Your task to perform on an android device: install app "Fetch Rewards" Image 0: 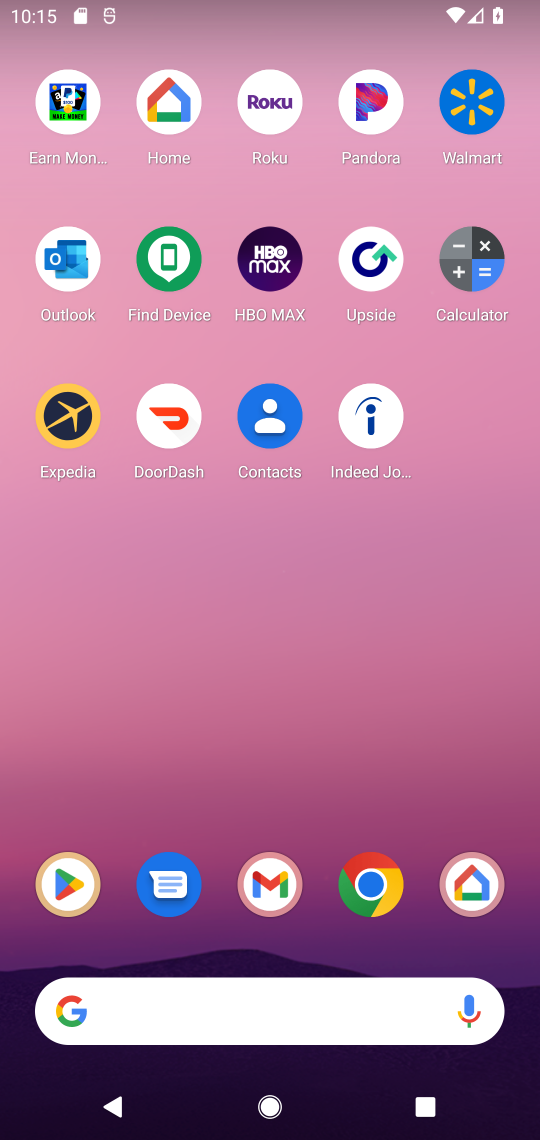
Step 0: click (67, 876)
Your task to perform on an android device: install app "Fetch Rewards" Image 1: 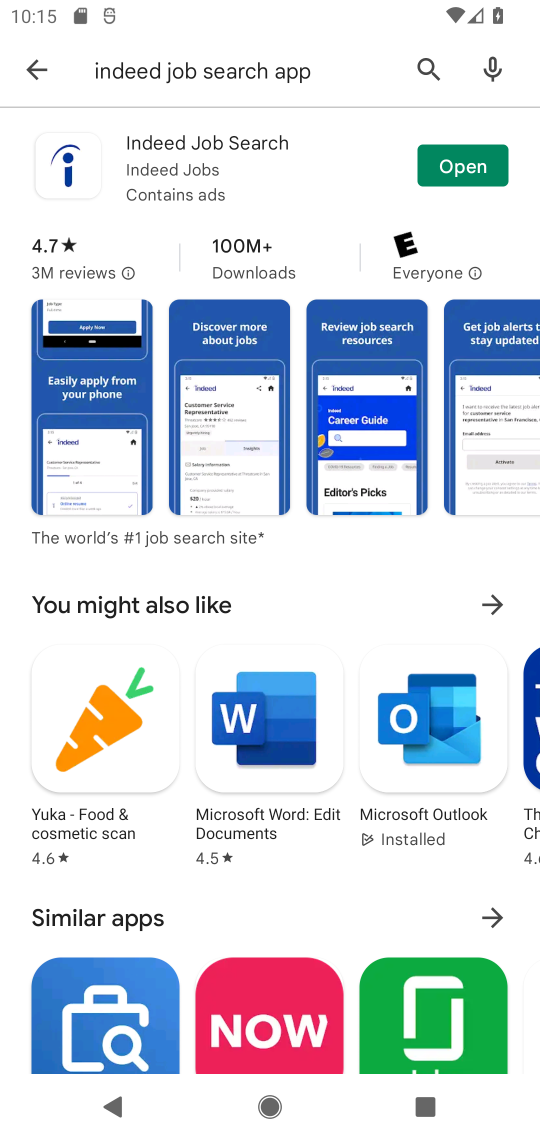
Step 1: click (289, 72)
Your task to perform on an android device: install app "Fetch Rewards" Image 2: 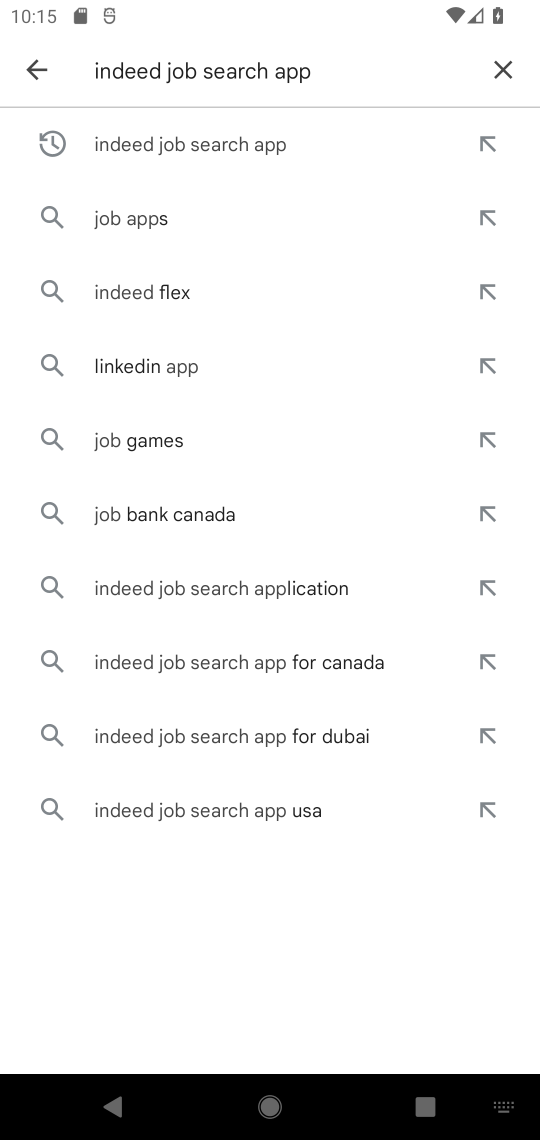
Step 2: click (498, 58)
Your task to perform on an android device: install app "Fetch Rewards" Image 3: 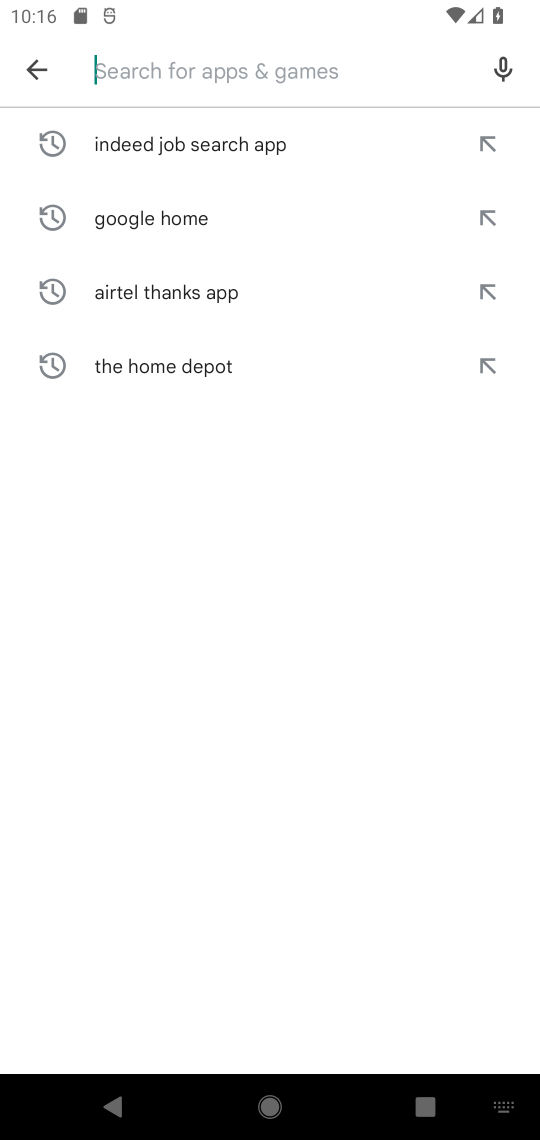
Step 3: type "fetch Rewards"
Your task to perform on an android device: install app "Fetch Rewards" Image 4: 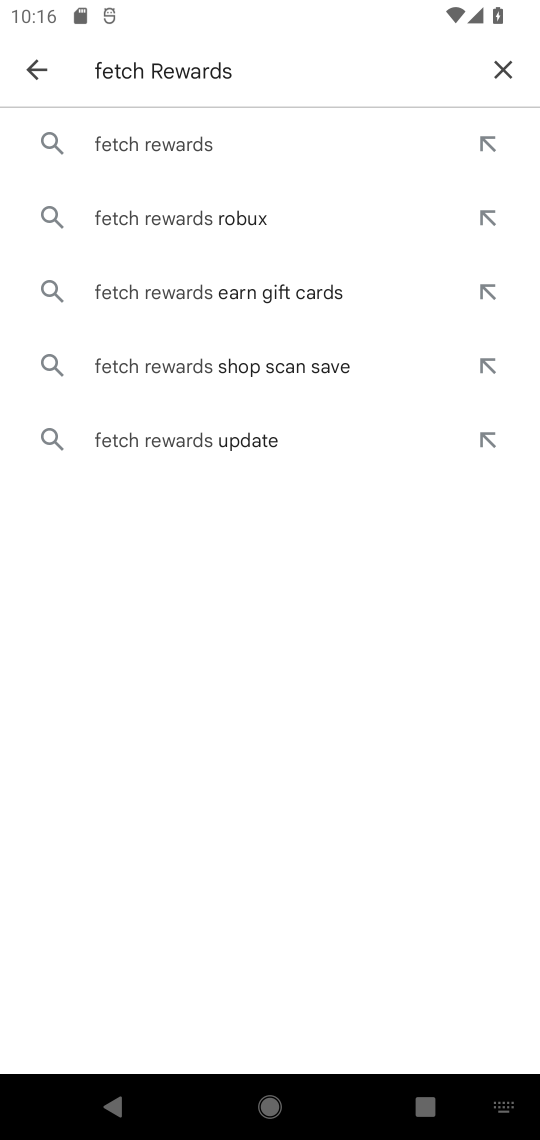
Step 4: click (159, 141)
Your task to perform on an android device: install app "Fetch Rewards" Image 5: 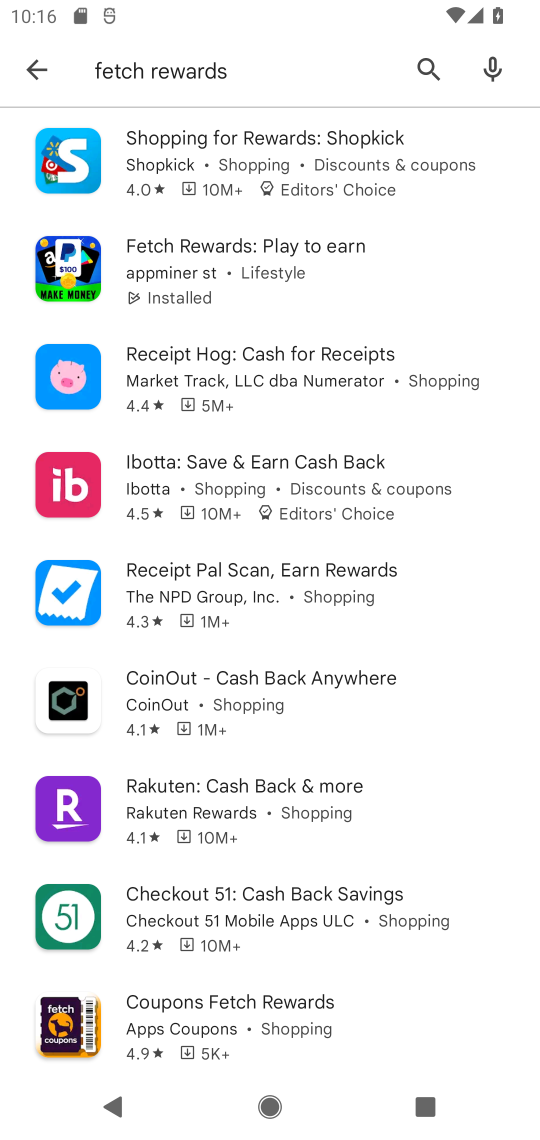
Step 5: click (206, 276)
Your task to perform on an android device: install app "Fetch Rewards" Image 6: 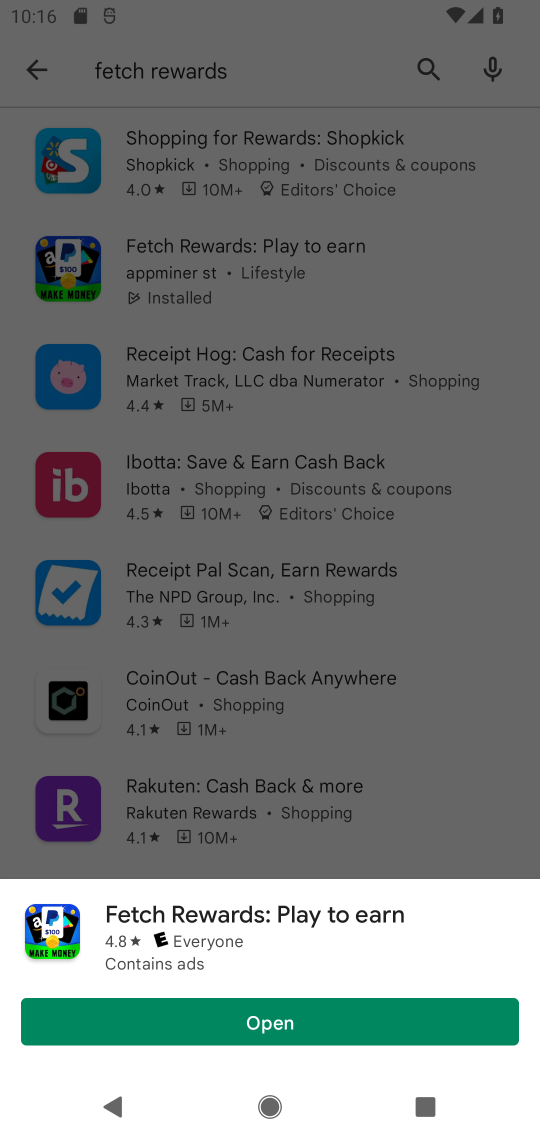
Step 6: click (200, 1010)
Your task to perform on an android device: install app "Fetch Rewards" Image 7: 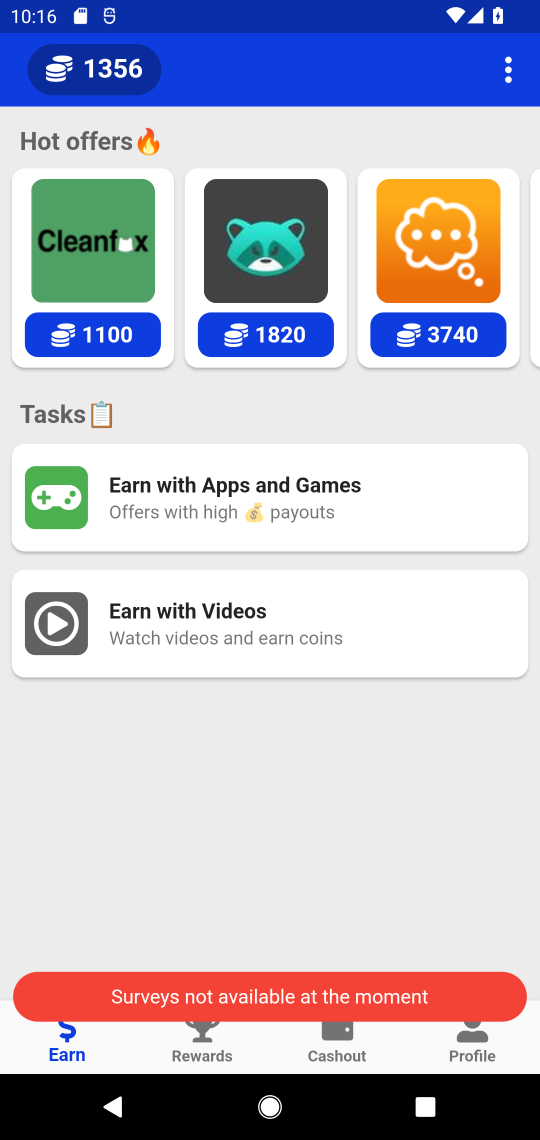
Step 7: task complete